Your task to perform on an android device: toggle notifications settings in the gmail app Image 0: 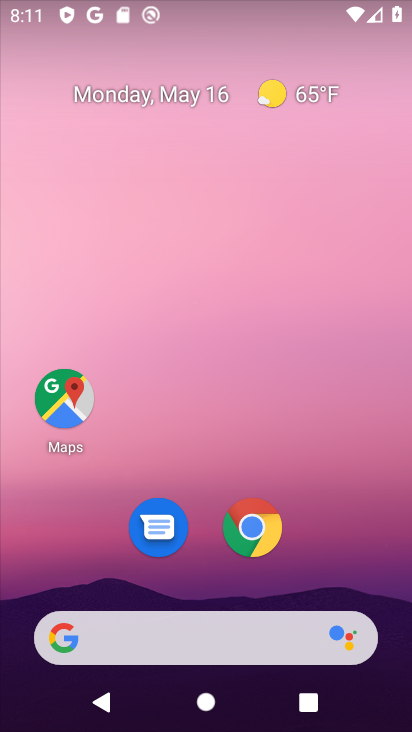
Step 0: drag from (313, 560) to (330, 180)
Your task to perform on an android device: toggle notifications settings in the gmail app Image 1: 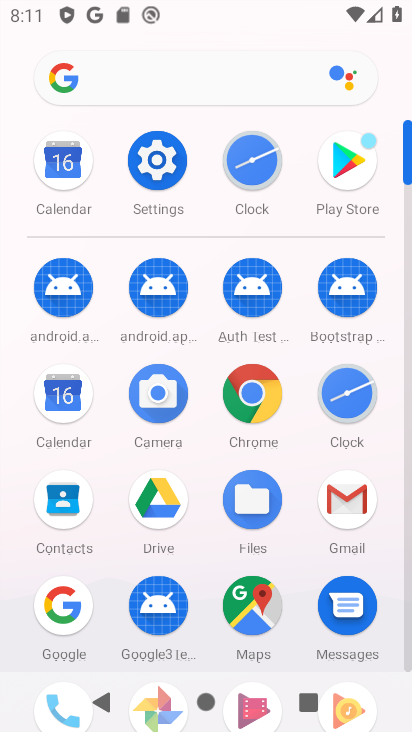
Step 1: click (351, 492)
Your task to perform on an android device: toggle notifications settings in the gmail app Image 2: 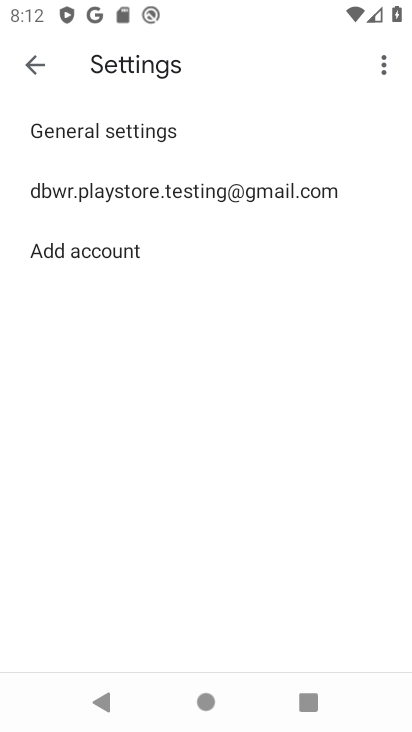
Step 2: click (373, 60)
Your task to perform on an android device: toggle notifications settings in the gmail app Image 3: 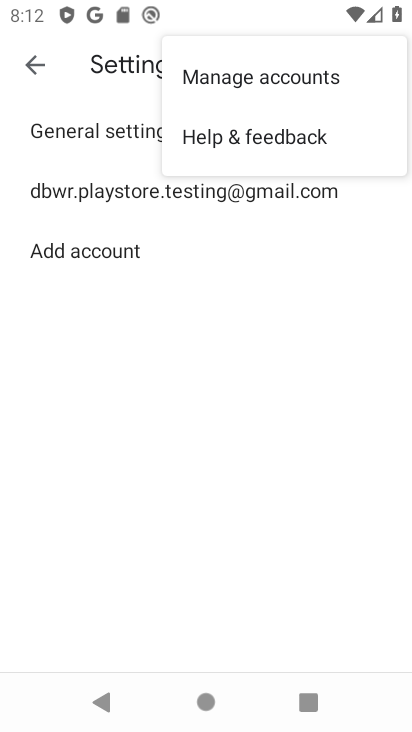
Step 3: click (212, 271)
Your task to perform on an android device: toggle notifications settings in the gmail app Image 4: 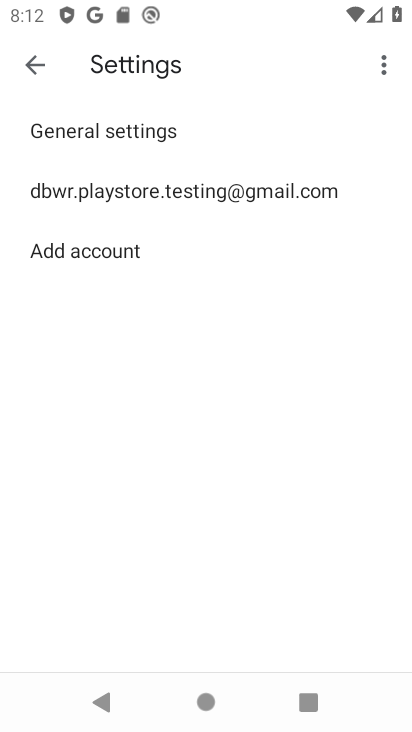
Step 4: click (14, 67)
Your task to perform on an android device: toggle notifications settings in the gmail app Image 5: 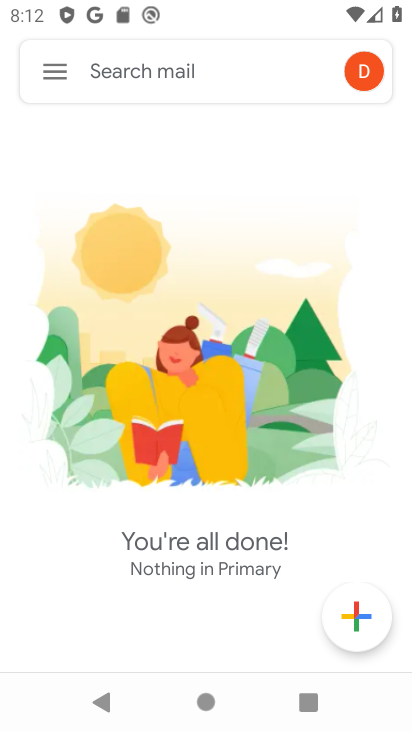
Step 5: click (54, 65)
Your task to perform on an android device: toggle notifications settings in the gmail app Image 6: 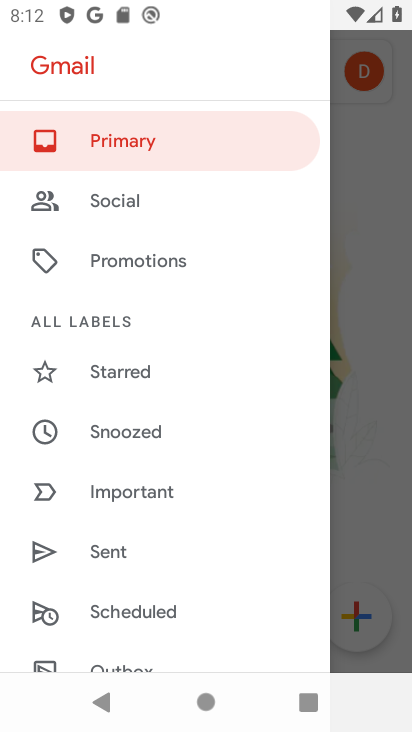
Step 6: drag from (156, 615) to (288, 174)
Your task to perform on an android device: toggle notifications settings in the gmail app Image 7: 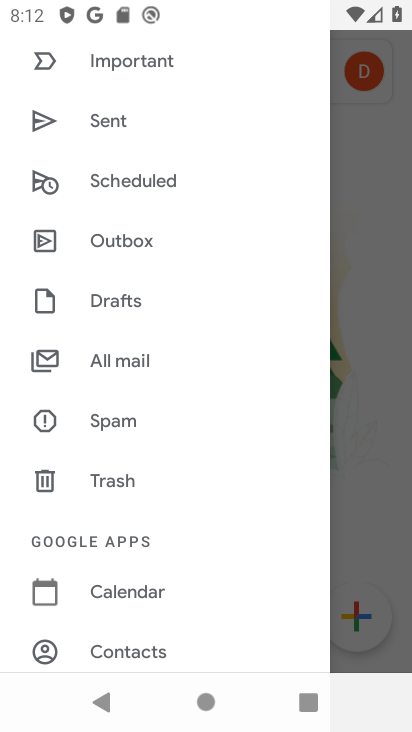
Step 7: drag from (126, 614) to (196, 258)
Your task to perform on an android device: toggle notifications settings in the gmail app Image 8: 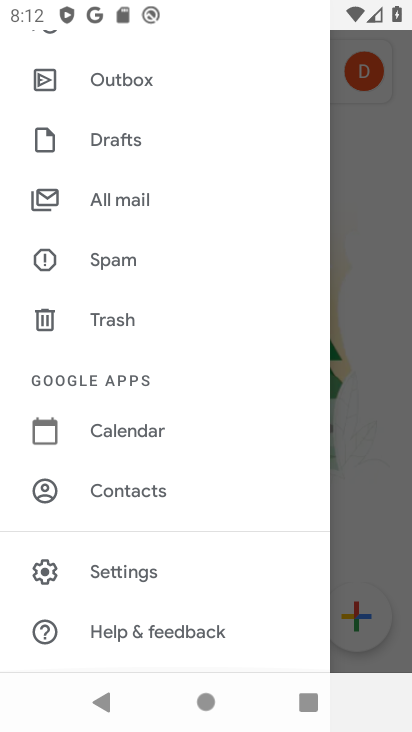
Step 8: click (119, 568)
Your task to perform on an android device: toggle notifications settings in the gmail app Image 9: 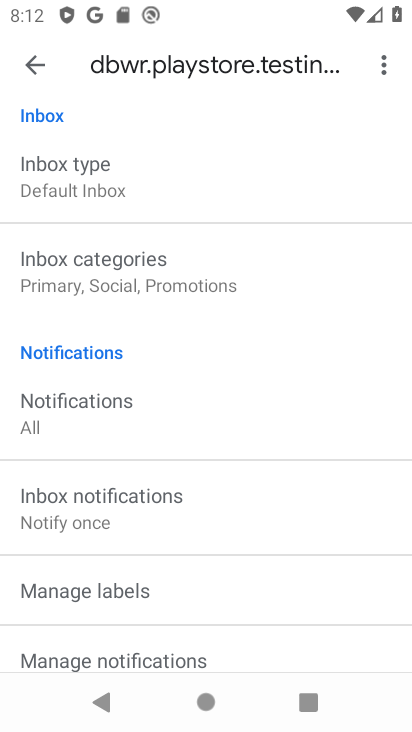
Step 9: click (95, 414)
Your task to perform on an android device: toggle notifications settings in the gmail app Image 10: 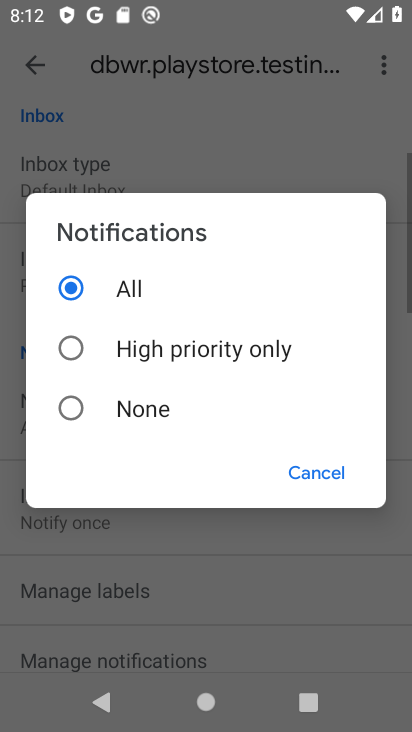
Step 10: click (126, 415)
Your task to perform on an android device: toggle notifications settings in the gmail app Image 11: 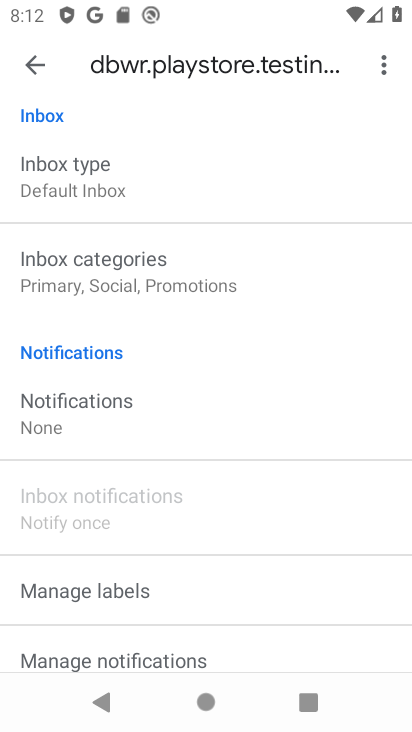
Step 11: task complete